Your task to perform on an android device: What is the news today? Image 0: 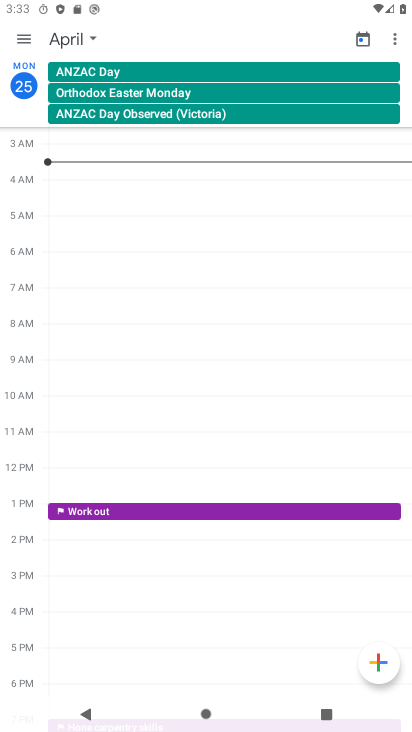
Step 0: press home button
Your task to perform on an android device: What is the news today? Image 1: 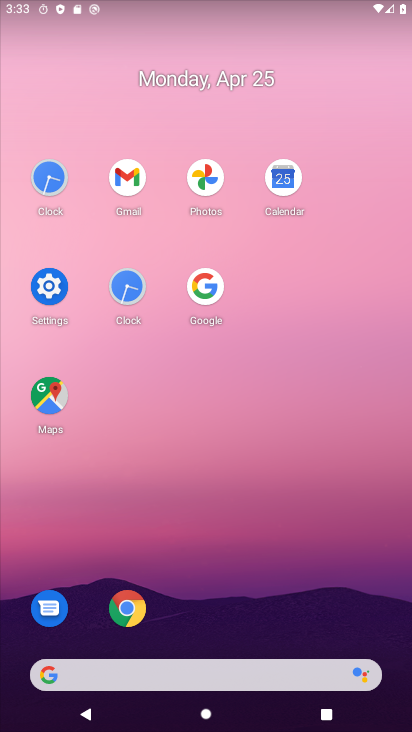
Step 1: click (122, 614)
Your task to perform on an android device: What is the news today? Image 2: 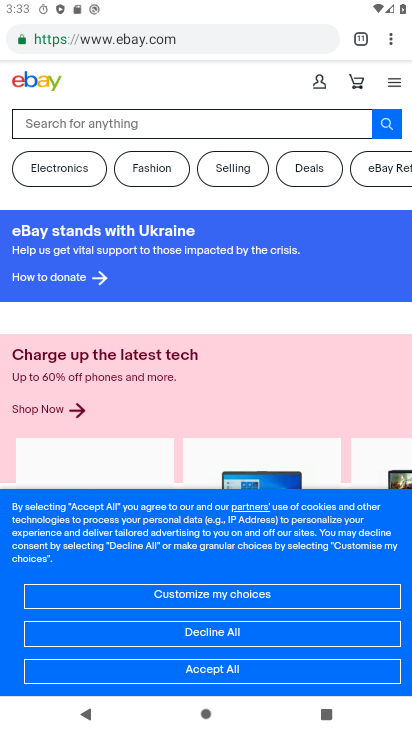
Step 2: click (360, 43)
Your task to perform on an android device: What is the news today? Image 3: 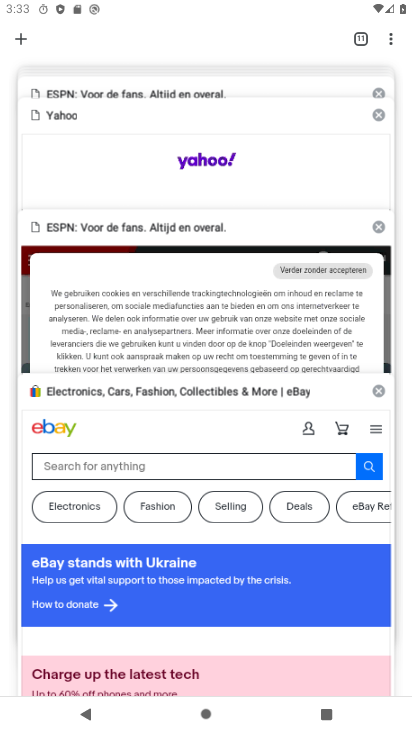
Step 3: click (17, 40)
Your task to perform on an android device: What is the news today? Image 4: 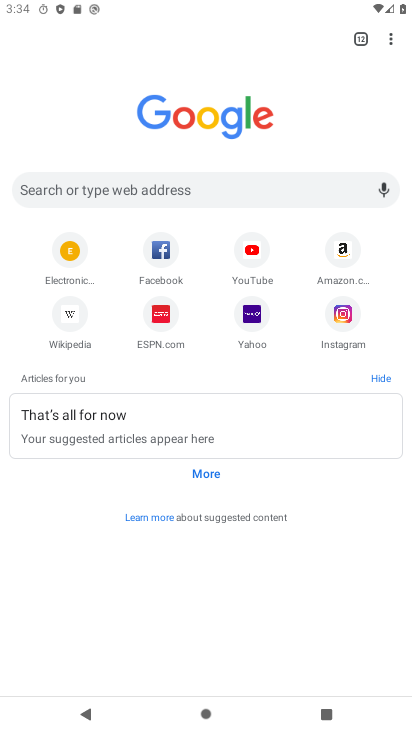
Step 4: click (117, 187)
Your task to perform on an android device: What is the news today? Image 5: 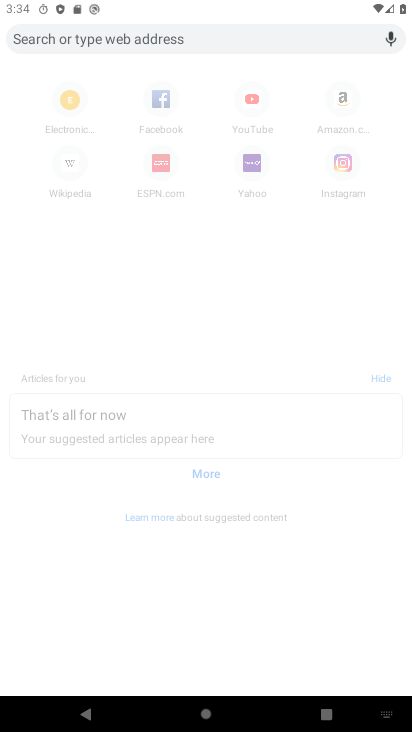
Step 5: type "today news"
Your task to perform on an android device: What is the news today? Image 6: 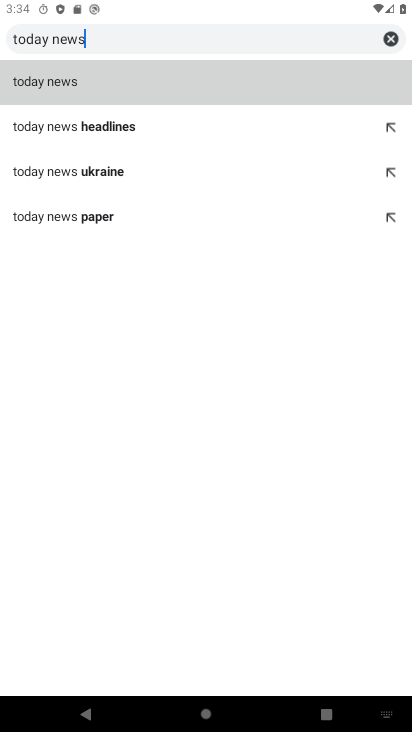
Step 6: click (133, 78)
Your task to perform on an android device: What is the news today? Image 7: 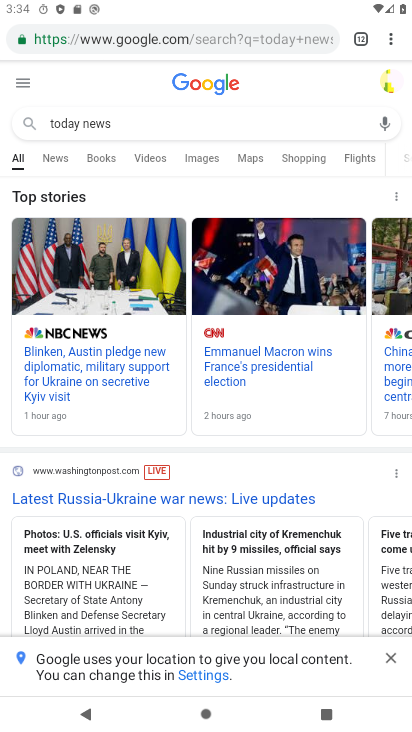
Step 7: task complete